Your task to perform on an android device: Search for Mexican restaurants on Maps Image 0: 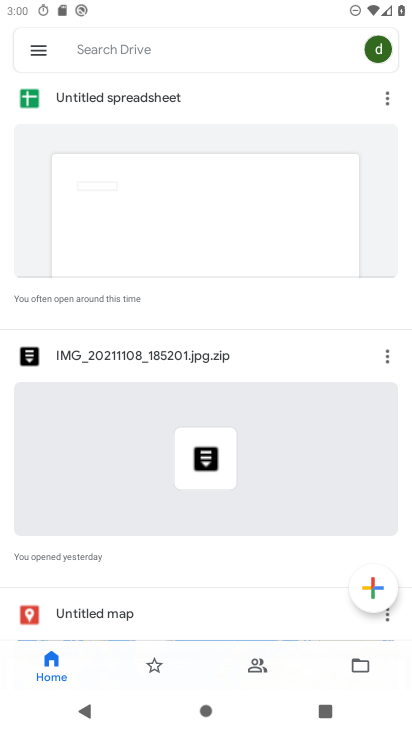
Step 0: press home button
Your task to perform on an android device: Search for Mexican restaurants on Maps Image 1: 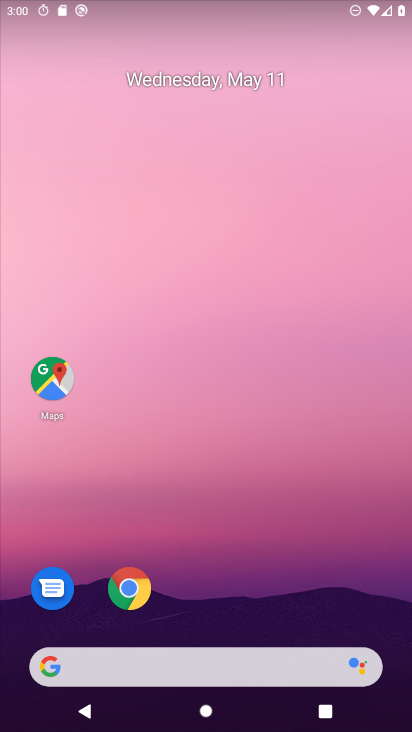
Step 1: click (50, 371)
Your task to perform on an android device: Search for Mexican restaurants on Maps Image 2: 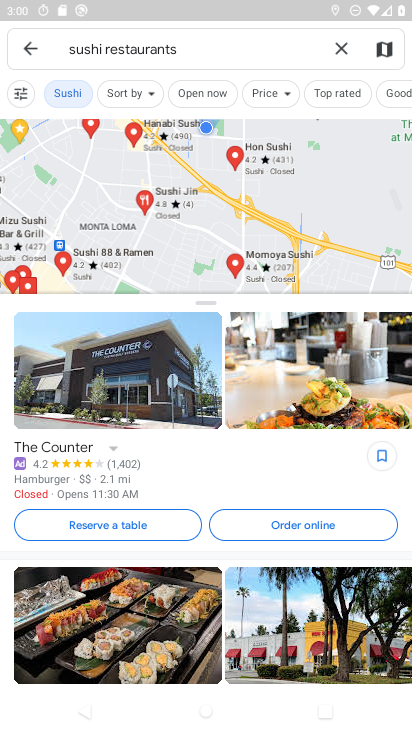
Step 2: click (342, 48)
Your task to perform on an android device: Search for Mexican restaurants on Maps Image 3: 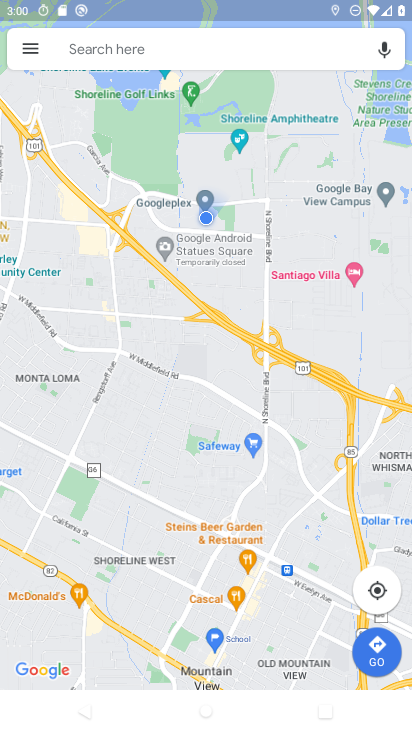
Step 3: click (105, 41)
Your task to perform on an android device: Search for Mexican restaurants on Maps Image 4: 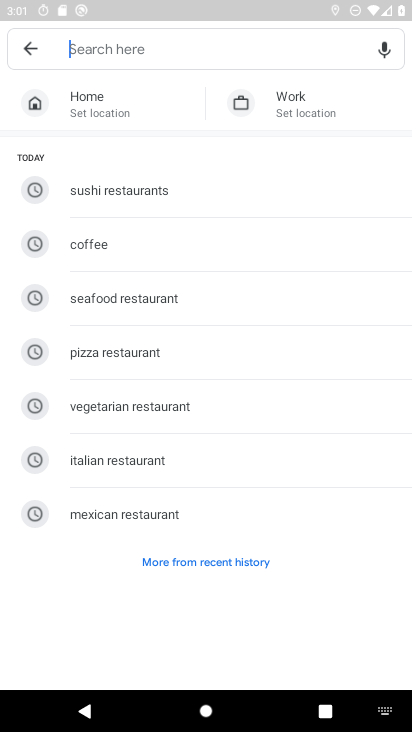
Step 4: type " Mexican restaurants"
Your task to perform on an android device: Search for Mexican restaurants on Maps Image 5: 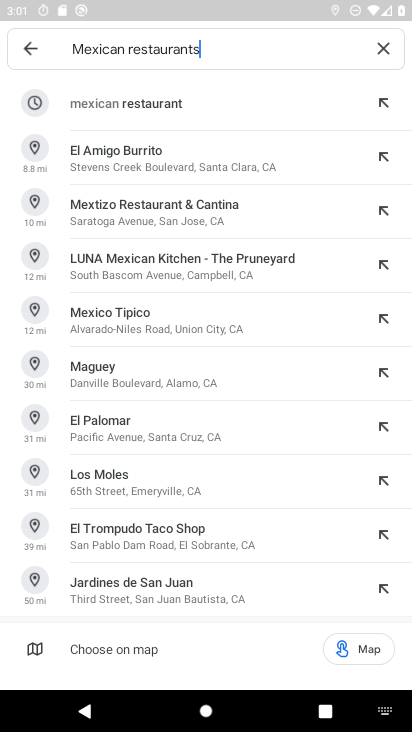
Step 5: click (150, 103)
Your task to perform on an android device: Search for Mexican restaurants on Maps Image 6: 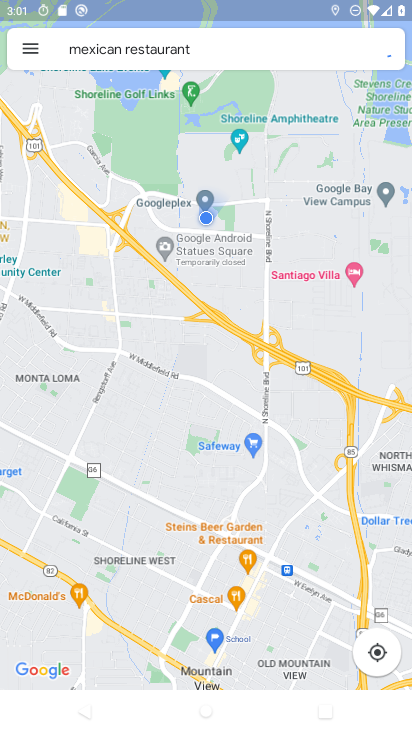
Step 6: click (149, 102)
Your task to perform on an android device: Search for Mexican restaurants on Maps Image 7: 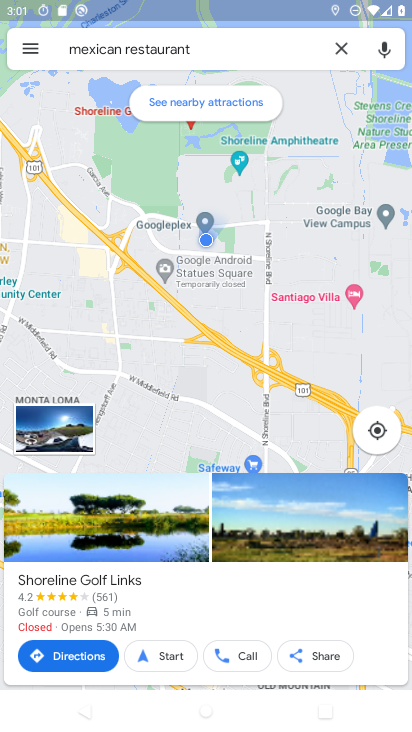
Step 7: task complete